Your task to perform on an android device: Open accessibility settings Image 0: 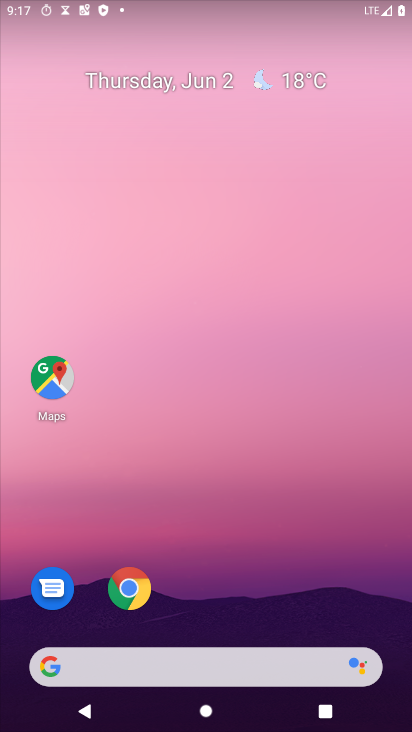
Step 0: drag from (250, 562) to (254, 87)
Your task to perform on an android device: Open accessibility settings Image 1: 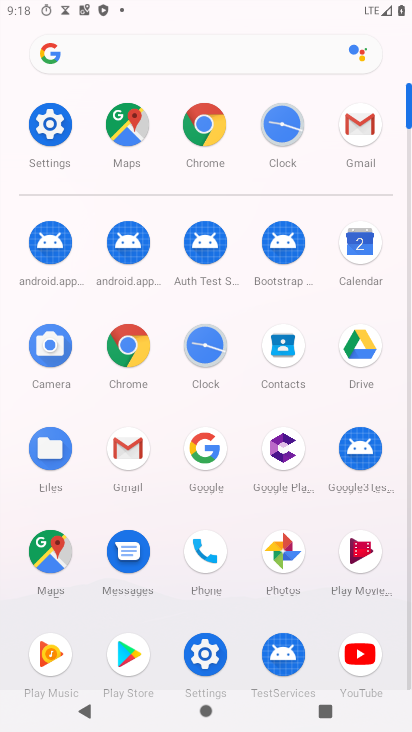
Step 1: click (40, 129)
Your task to perform on an android device: Open accessibility settings Image 2: 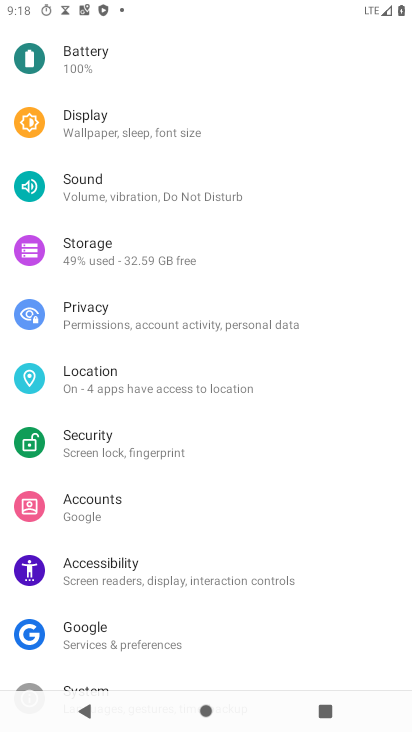
Step 2: click (102, 572)
Your task to perform on an android device: Open accessibility settings Image 3: 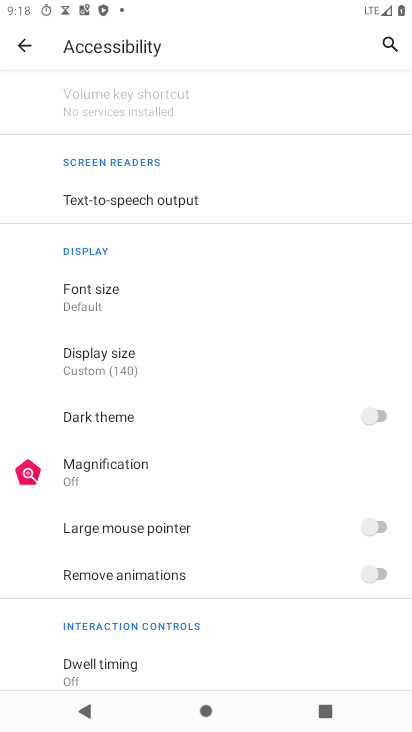
Step 3: task complete